Your task to perform on an android device: check the backup settings in the google photos Image 0: 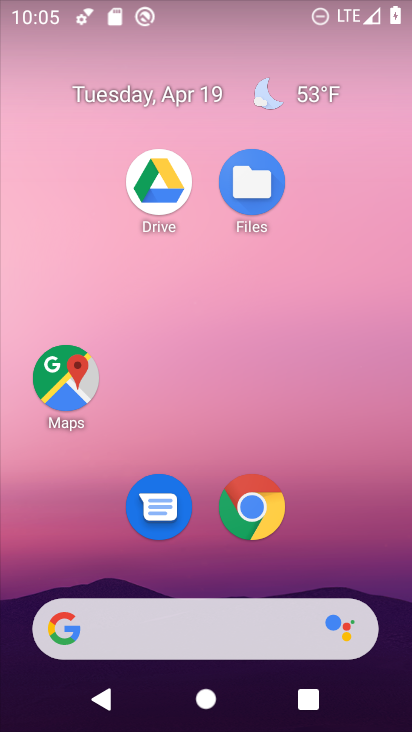
Step 0: drag from (340, 497) to (354, 130)
Your task to perform on an android device: check the backup settings in the google photos Image 1: 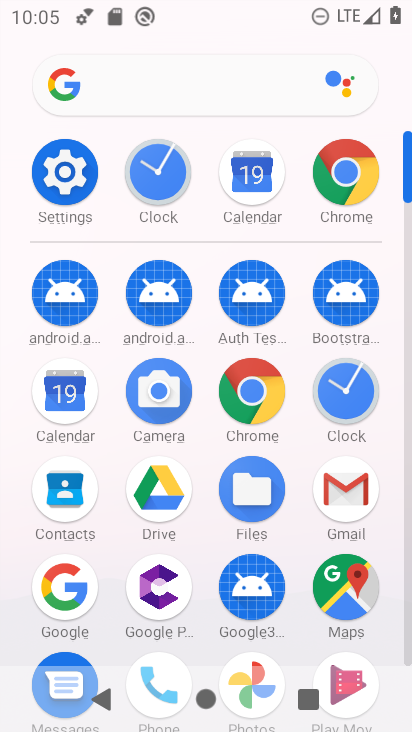
Step 1: drag from (209, 546) to (218, 321)
Your task to perform on an android device: check the backup settings in the google photos Image 2: 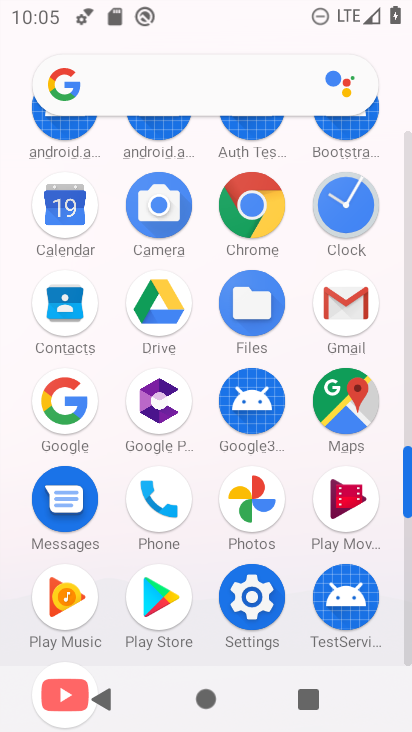
Step 2: click (244, 487)
Your task to perform on an android device: check the backup settings in the google photos Image 3: 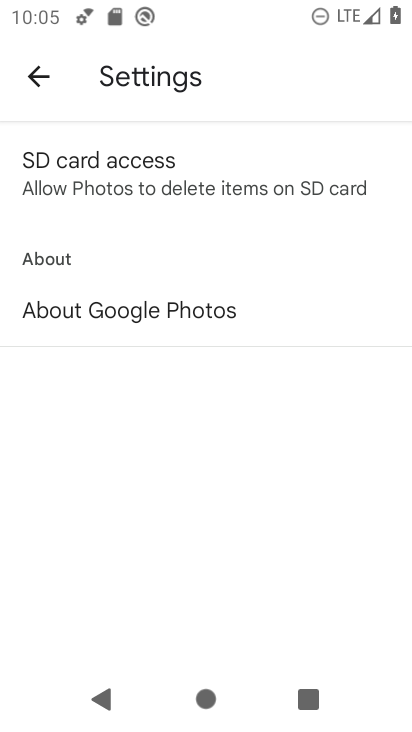
Step 3: click (45, 72)
Your task to perform on an android device: check the backup settings in the google photos Image 4: 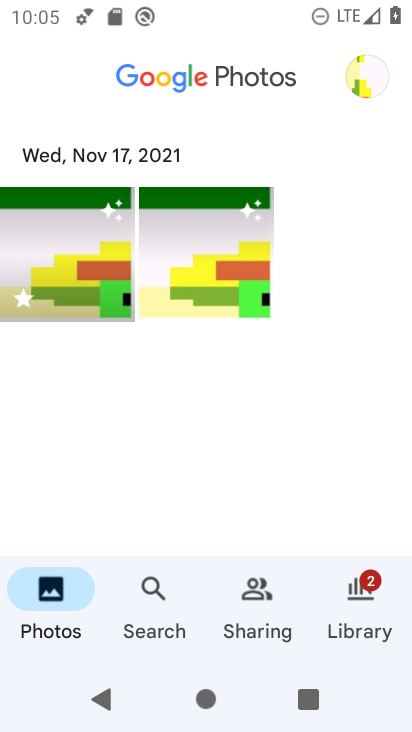
Step 4: click (365, 81)
Your task to perform on an android device: check the backup settings in the google photos Image 5: 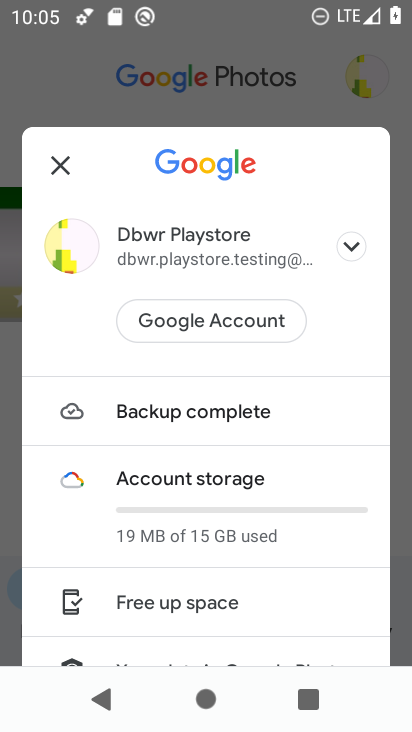
Step 5: drag from (266, 574) to (251, 277)
Your task to perform on an android device: check the backup settings in the google photos Image 6: 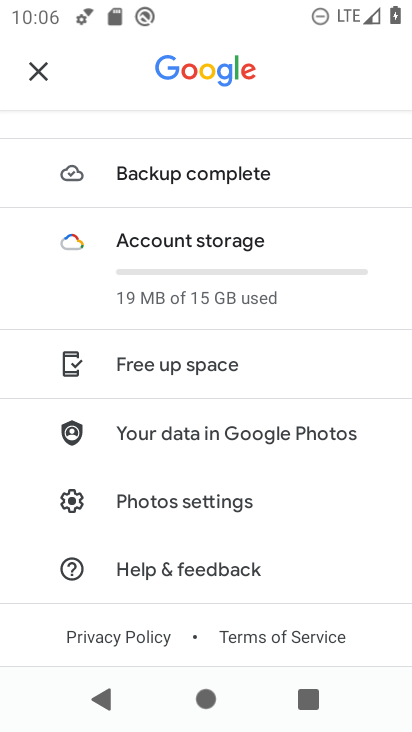
Step 6: click (194, 492)
Your task to perform on an android device: check the backup settings in the google photos Image 7: 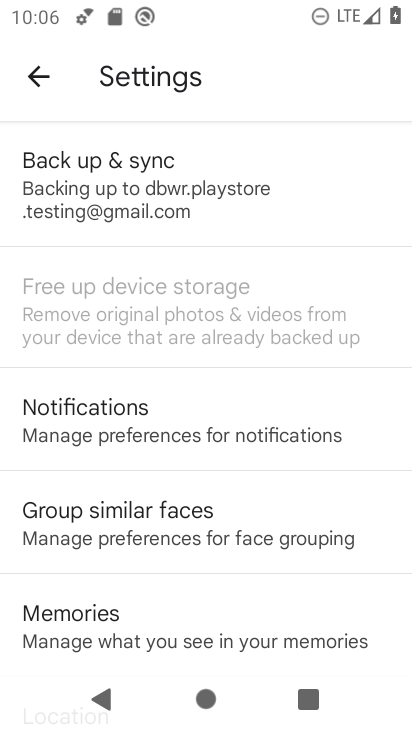
Step 7: click (143, 183)
Your task to perform on an android device: check the backup settings in the google photos Image 8: 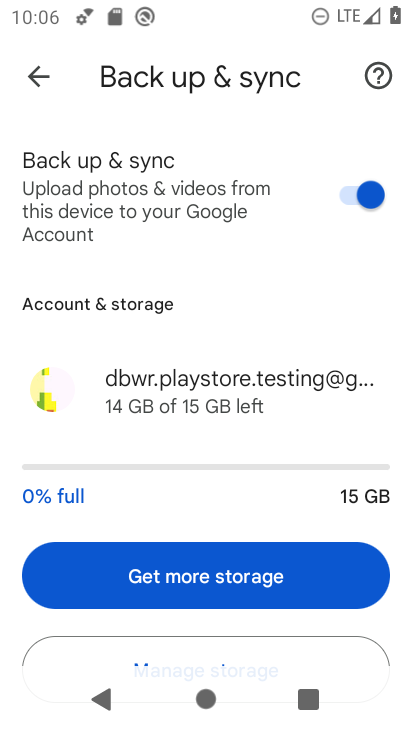
Step 8: task complete